Your task to perform on an android device: open chrome privacy settings Image 0: 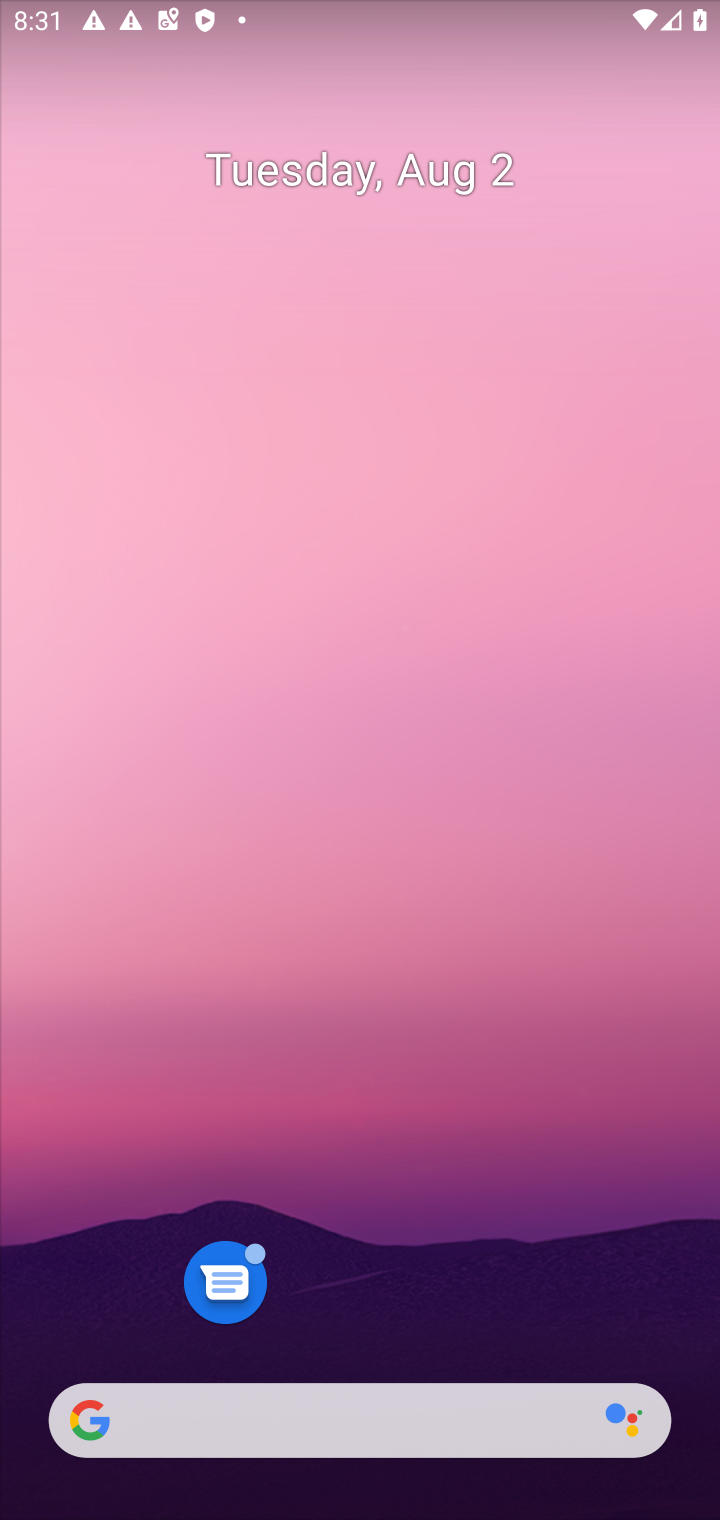
Step 0: drag from (396, 1335) to (248, 140)
Your task to perform on an android device: open chrome privacy settings Image 1: 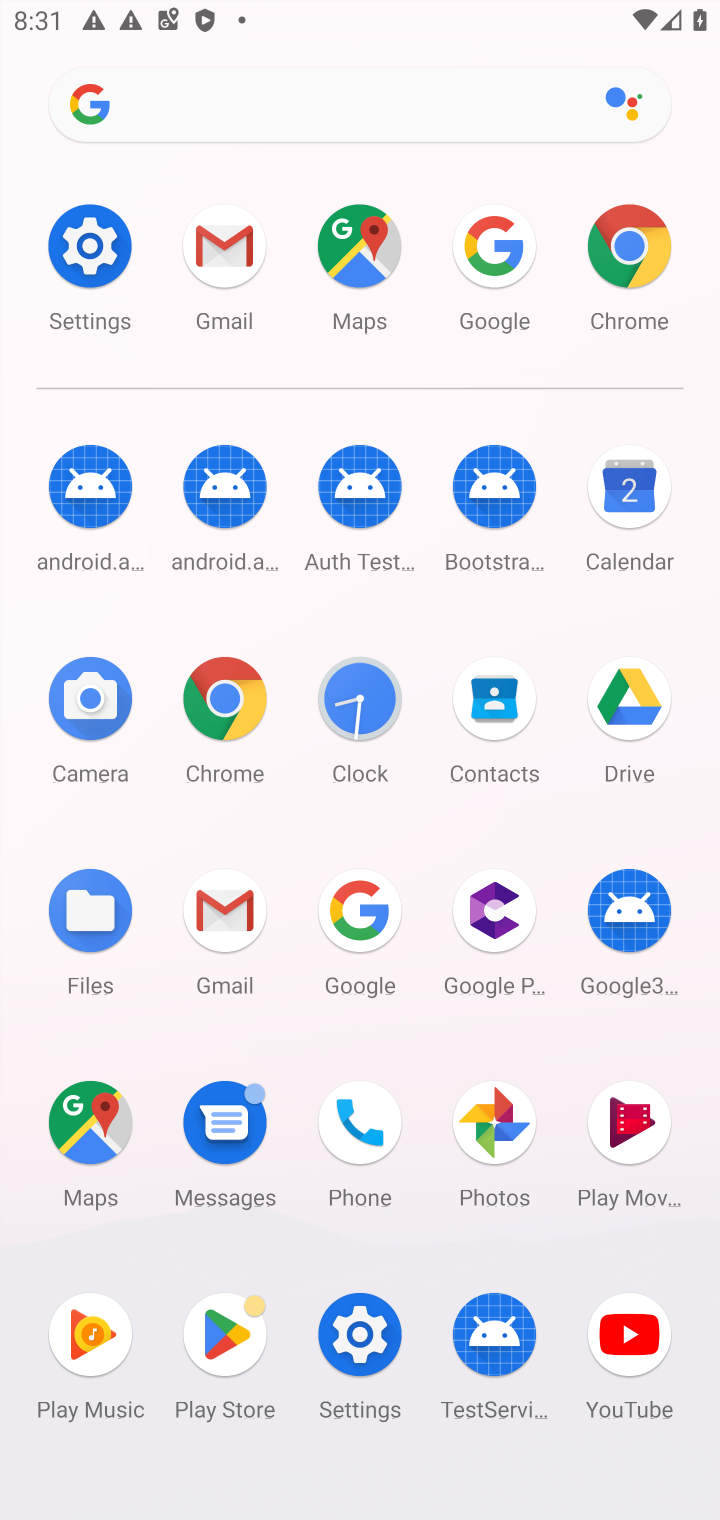
Step 1: click (205, 702)
Your task to perform on an android device: open chrome privacy settings Image 2: 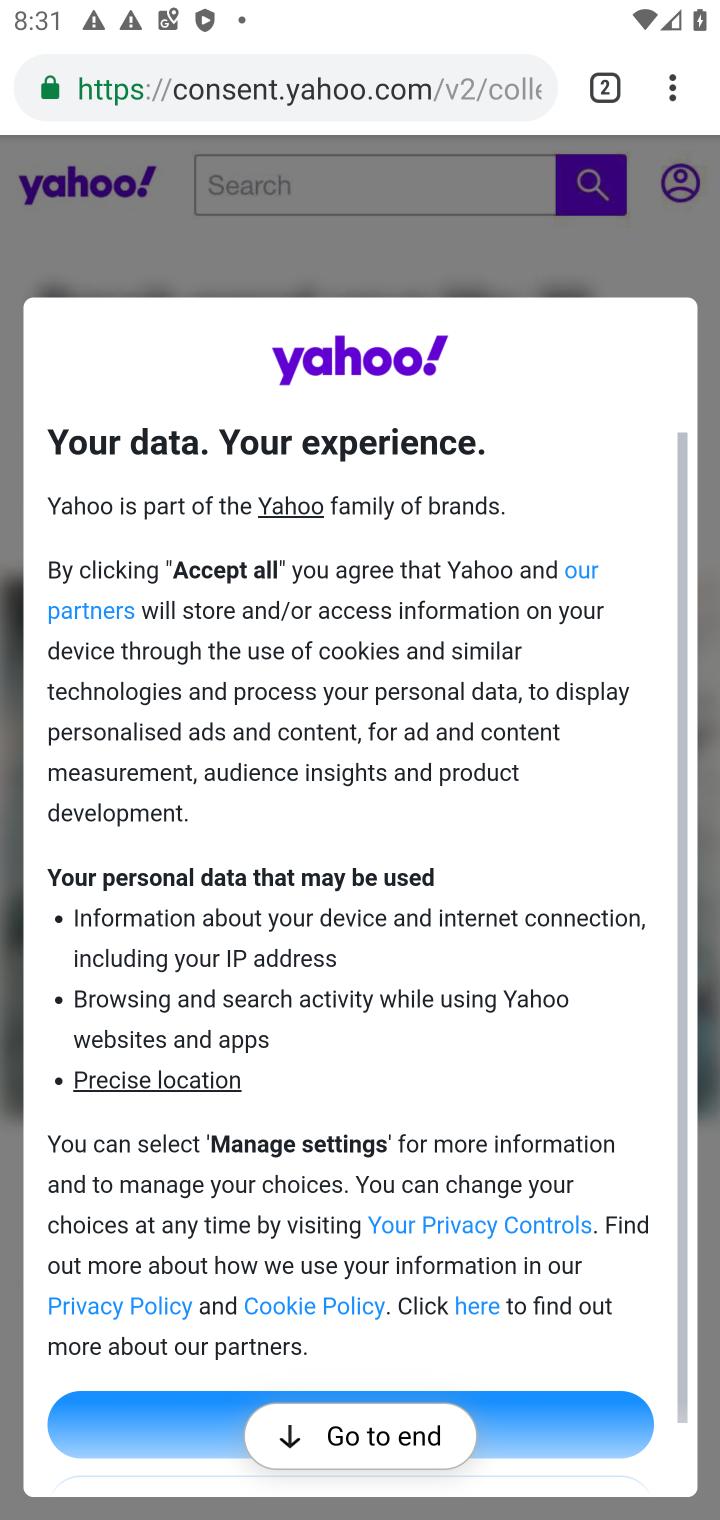
Step 2: drag from (667, 91) to (338, 1056)
Your task to perform on an android device: open chrome privacy settings Image 3: 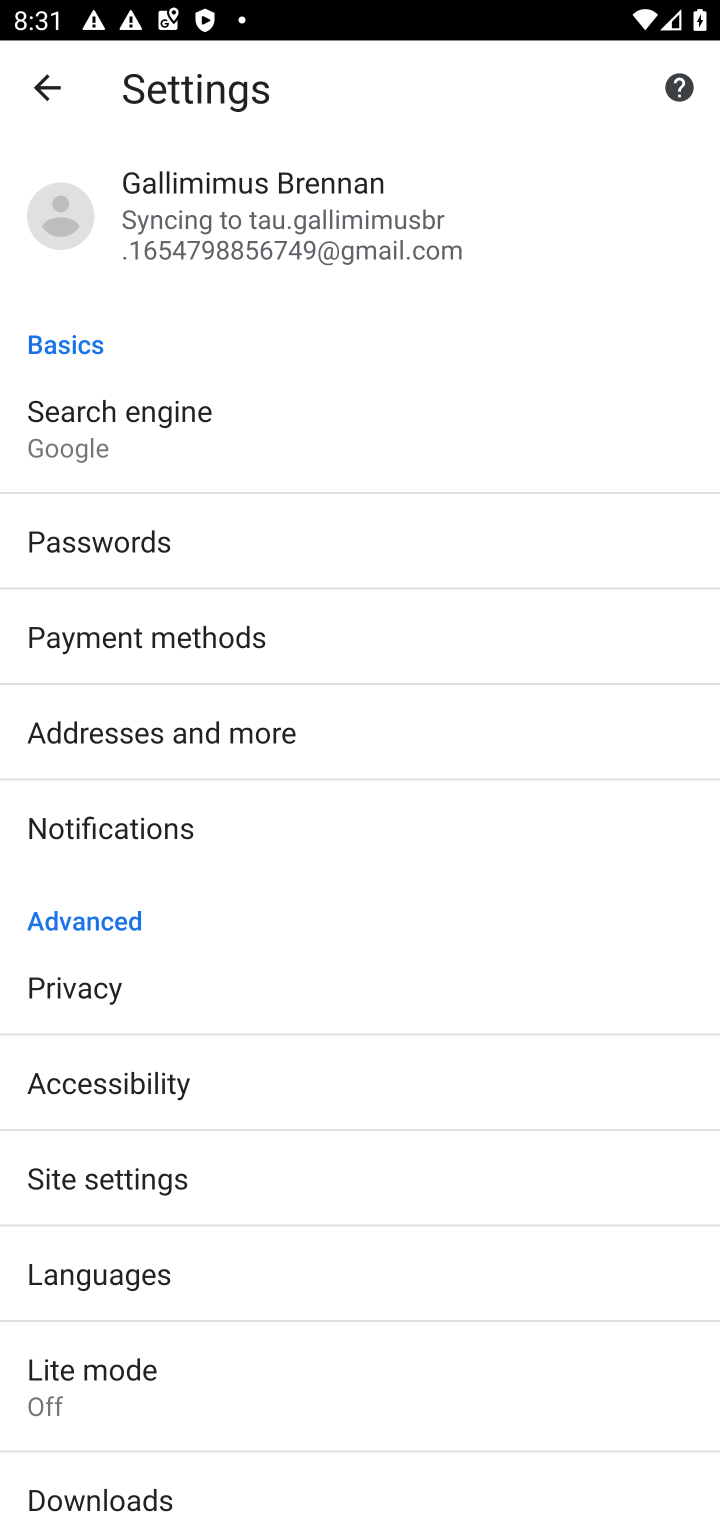
Step 3: click (66, 970)
Your task to perform on an android device: open chrome privacy settings Image 4: 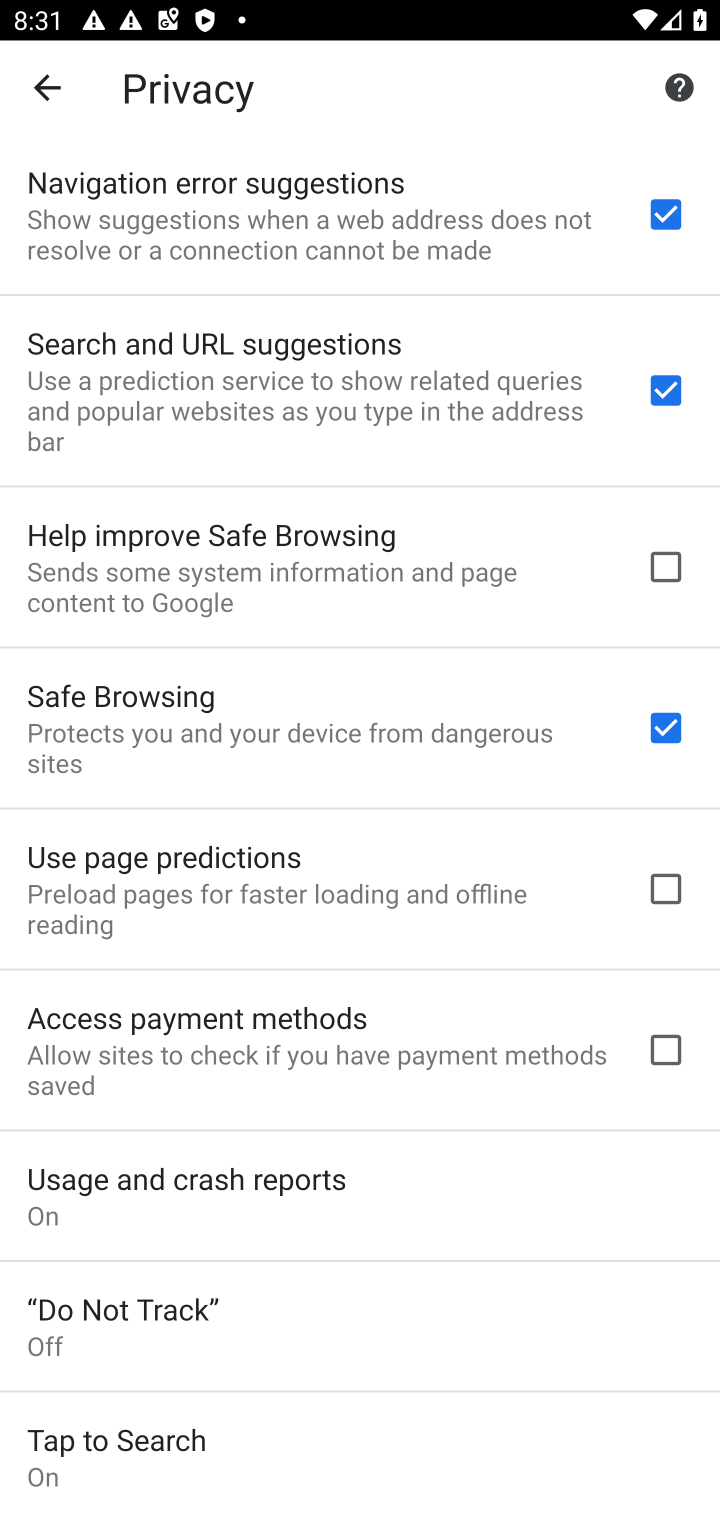
Step 4: task complete